Your task to perform on an android device: Open Google Maps Image 0: 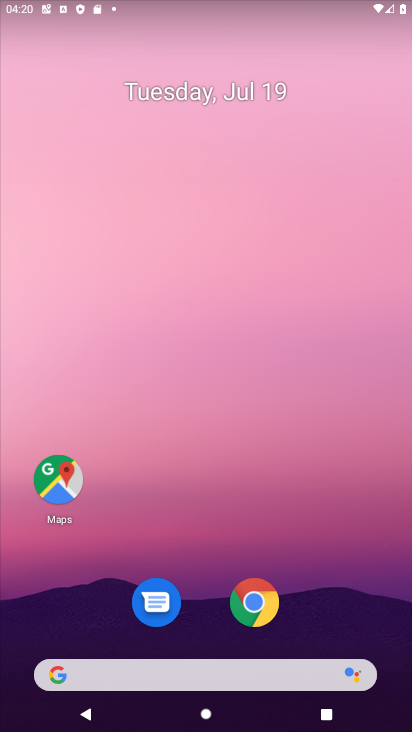
Step 0: click (65, 461)
Your task to perform on an android device: Open Google Maps Image 1: 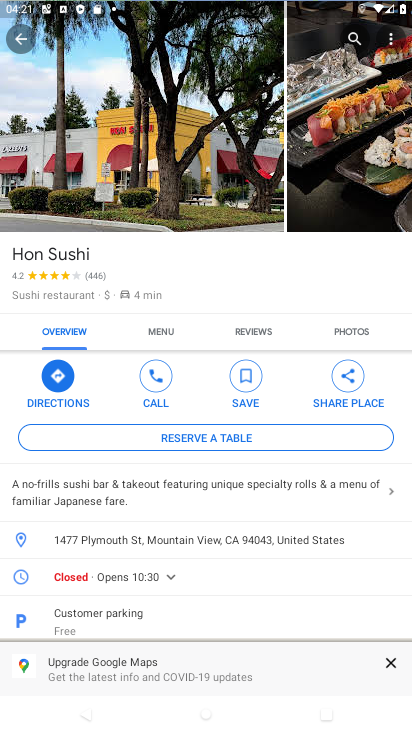
Step 1: task complete